Your task to perform on an android device: Open maps Image 0: 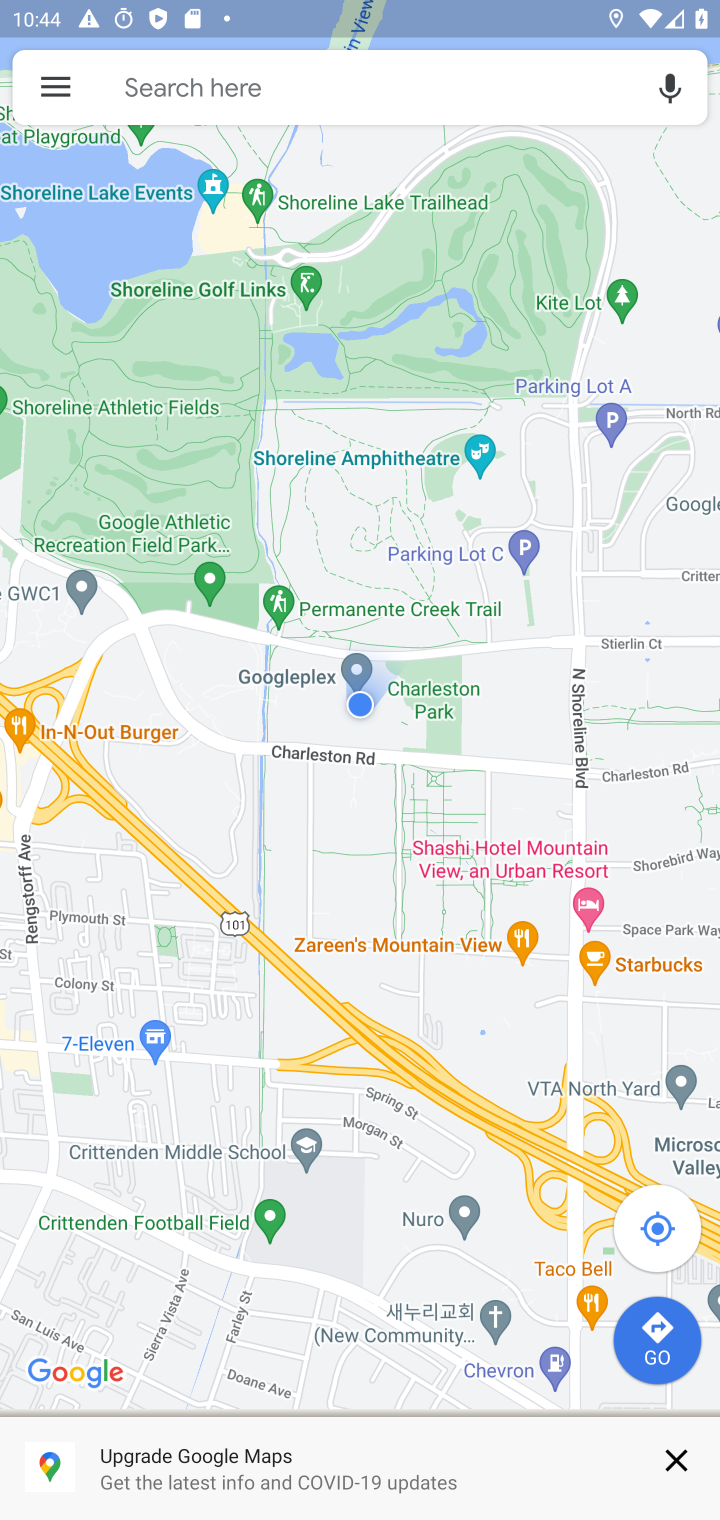
Step 0: press home button
Your task to perform on an android device: Open maps Image 1: 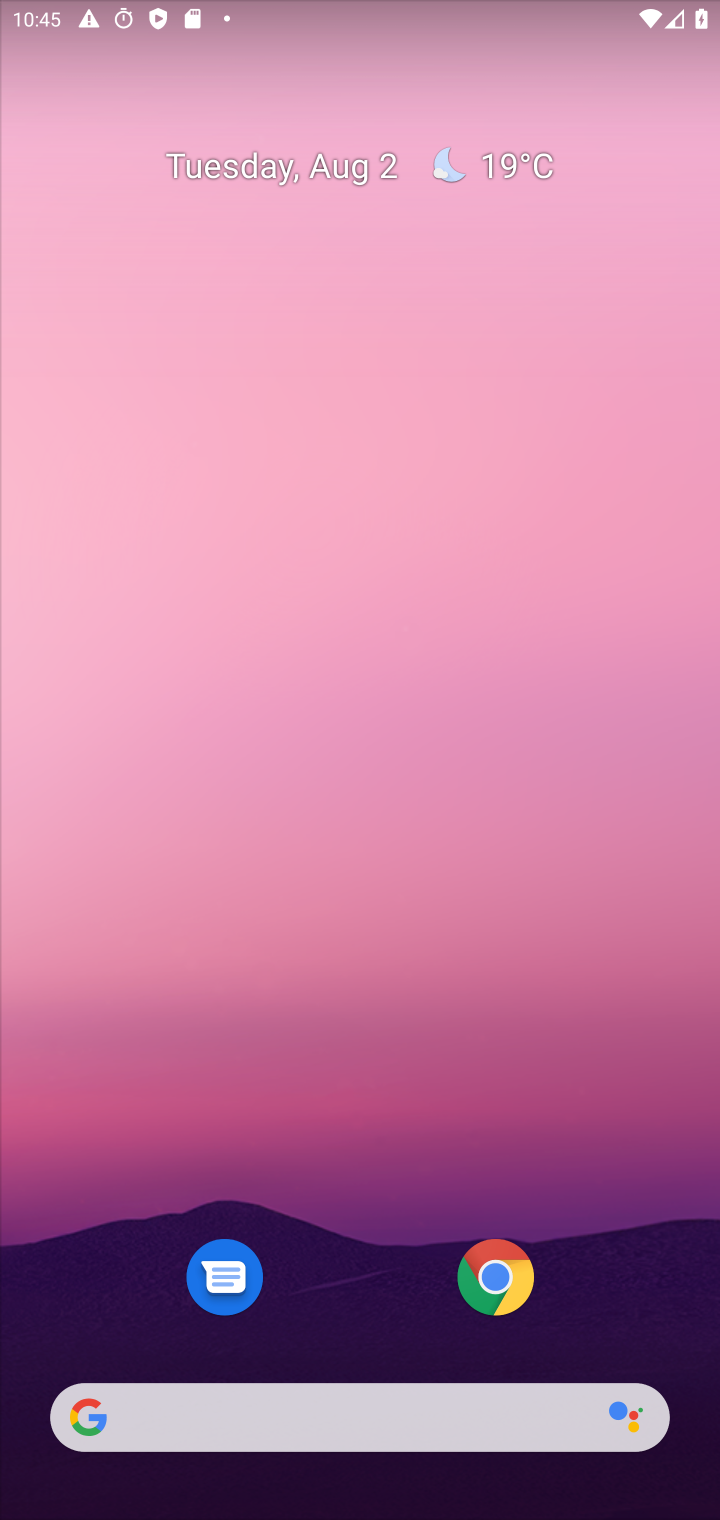
Step 1: drag from (310, 687) to (309, 368)
Your task to perform on an android device: Open maps Image 2: 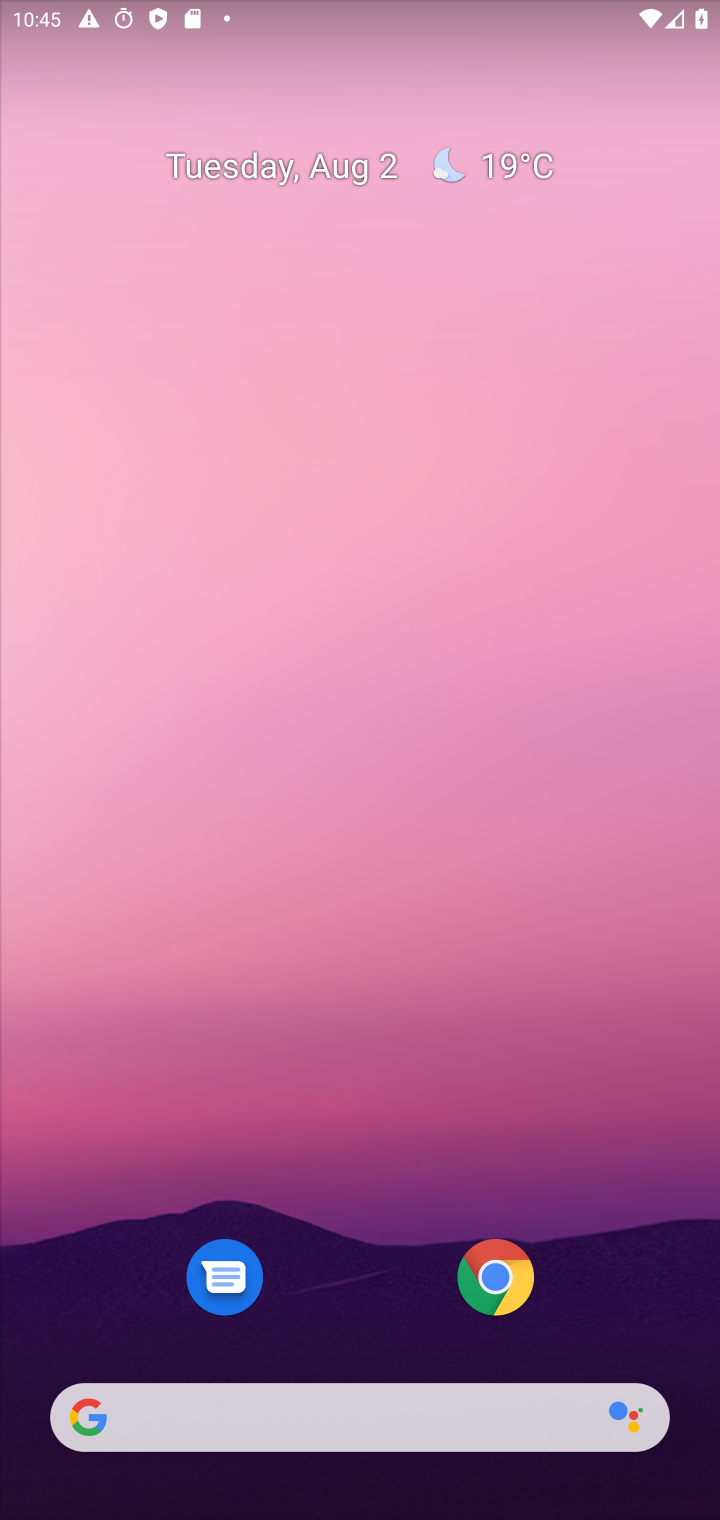
Step 2: drag from (350, 1314) to (319, 22)
Your task to perform on an android device: Open maps Image 3: 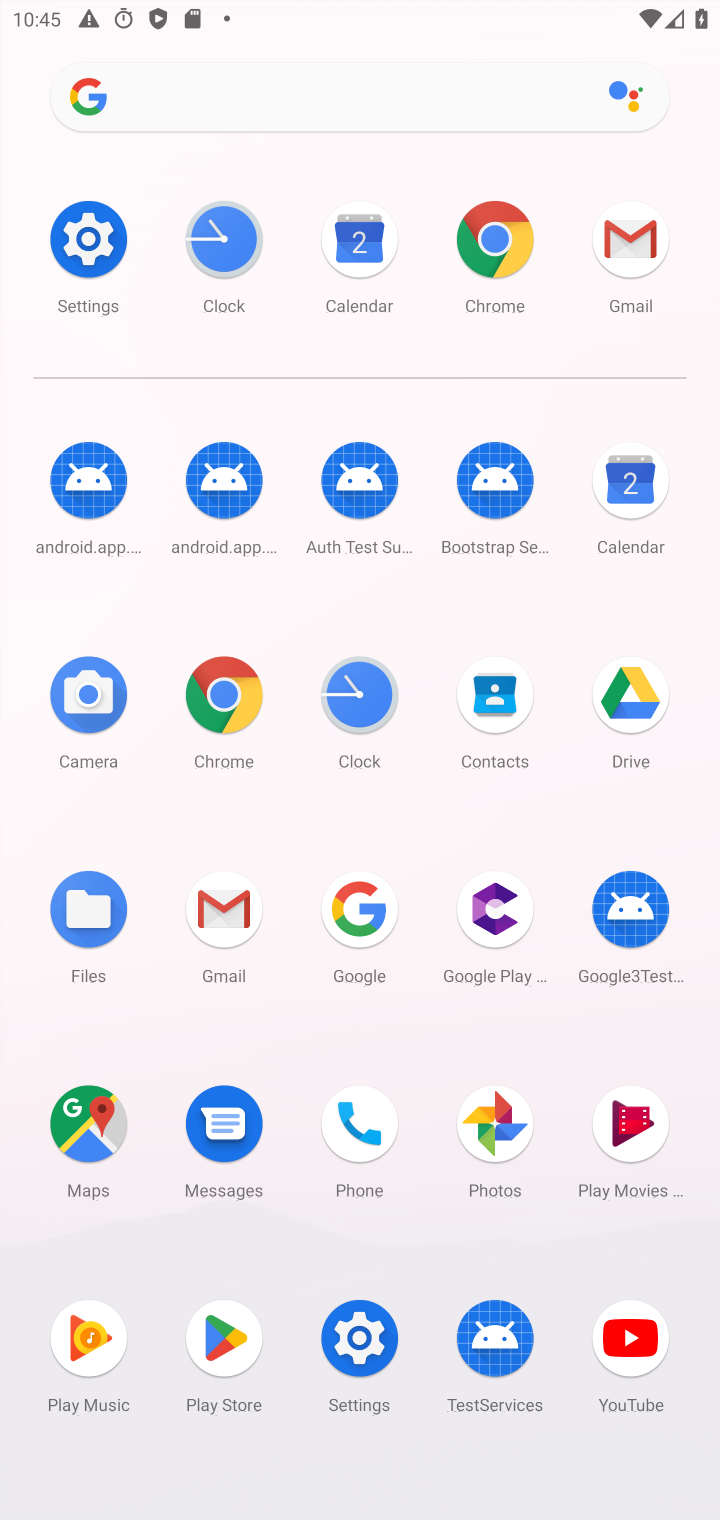
Step 3: click (91, 1133)
Your task to perform on an android device: Open maps Image 4: 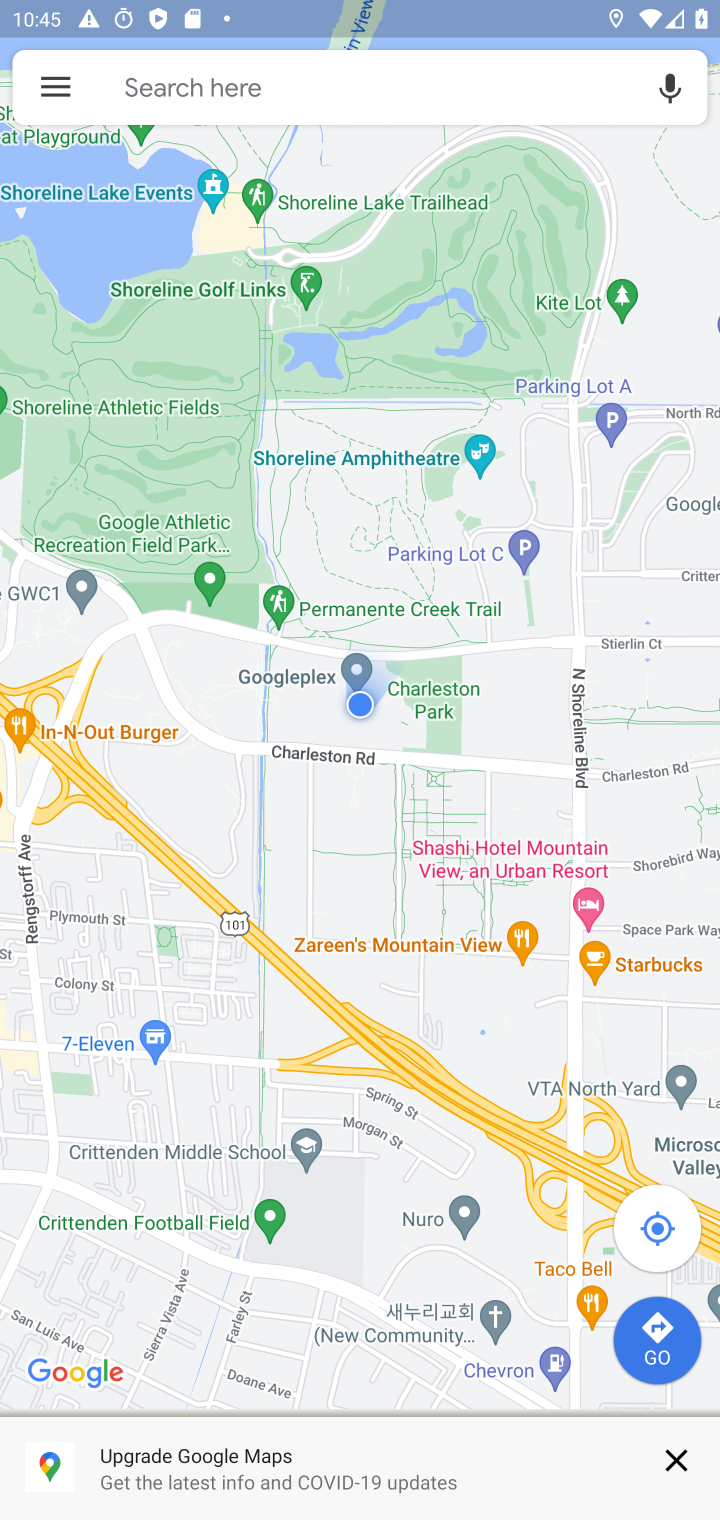
Step 4: task complete